Your task to perform on an android device: Is it going to rain tomorrow? Image 0: 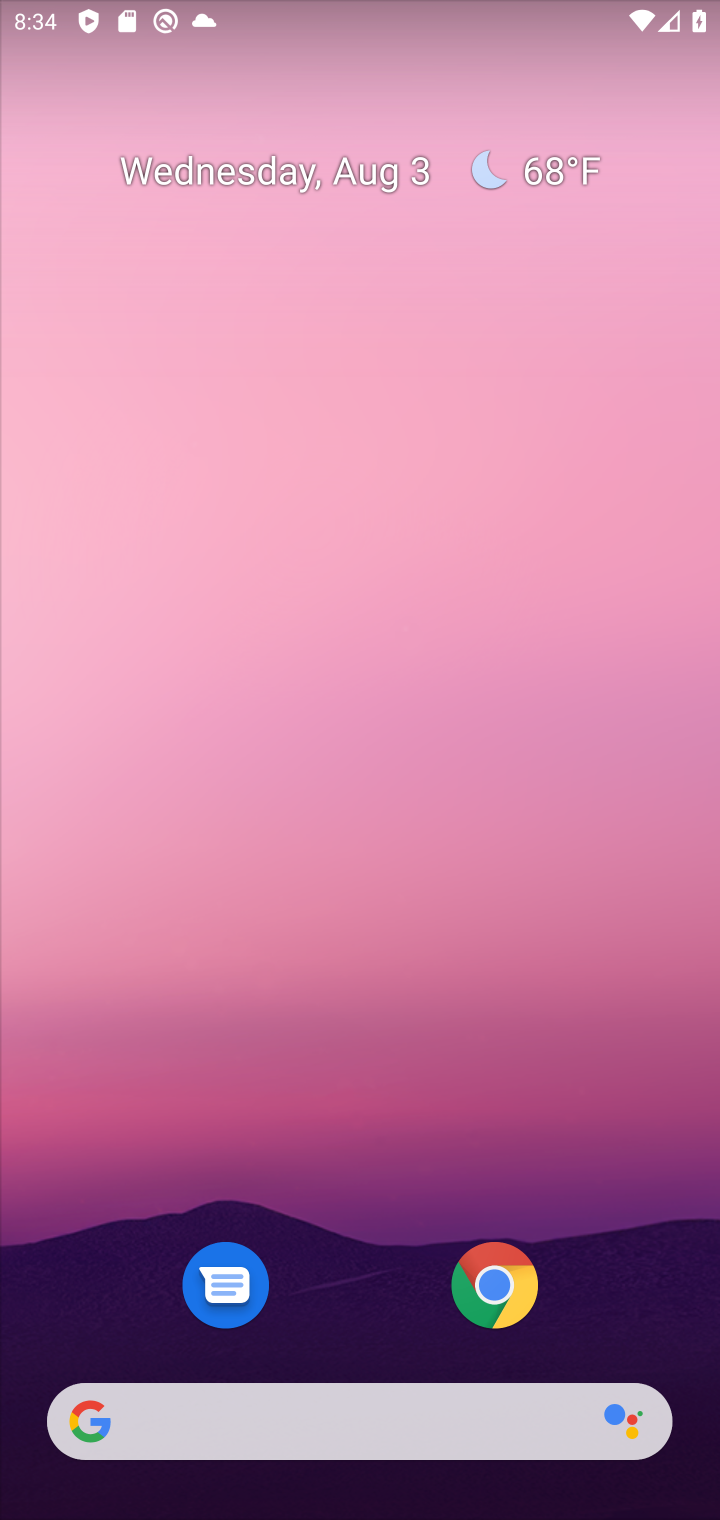
Step 0: drag from (625, 1272) to (532, 221)
Your task to perform on an android device: Is it going to rain tomorrow? Image 1: 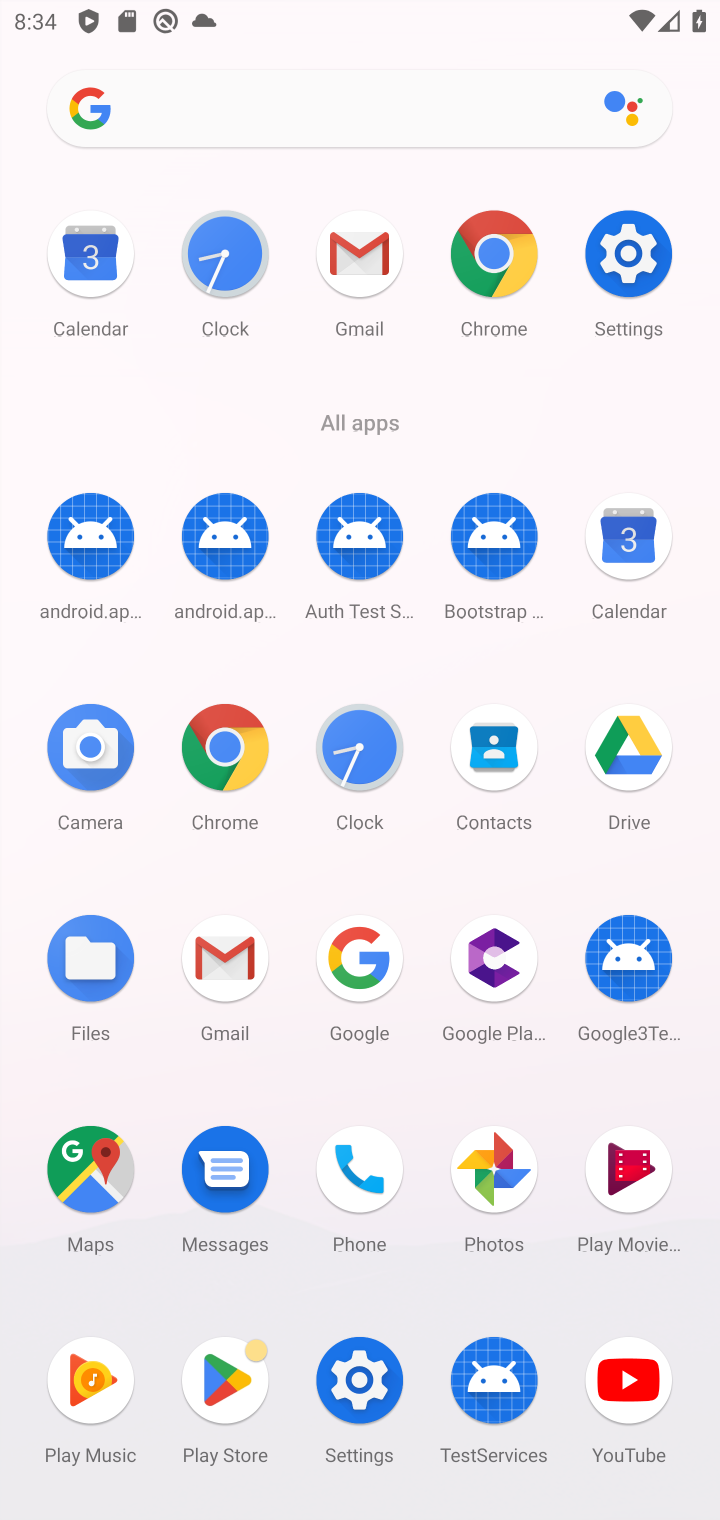
Step 1: click (354, 937)
Your task to perform on an android device: Is it going to rain tomorrow? Image 2: 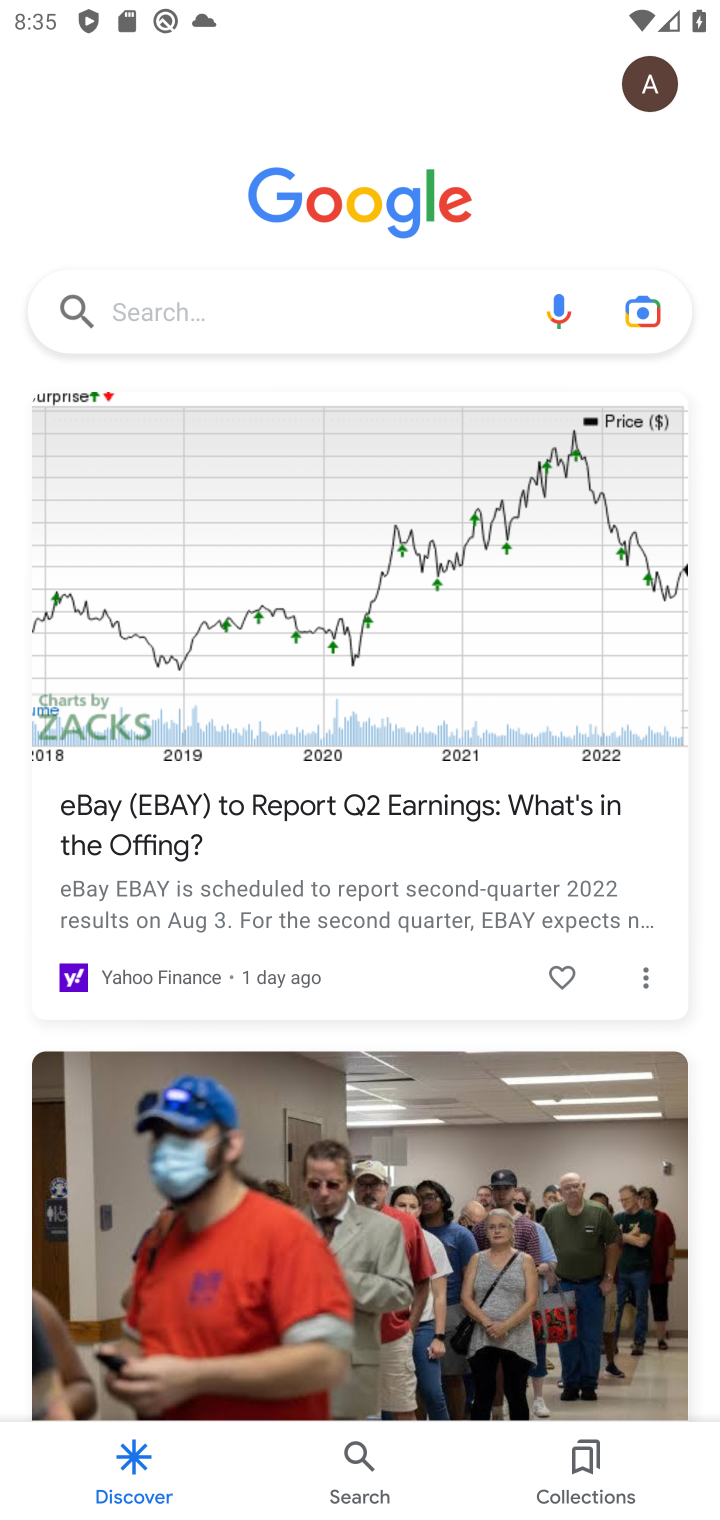
Step 2: click (336, 323)
Your task to perform on an android device: Is it going to rain tomorrow? Image 3: 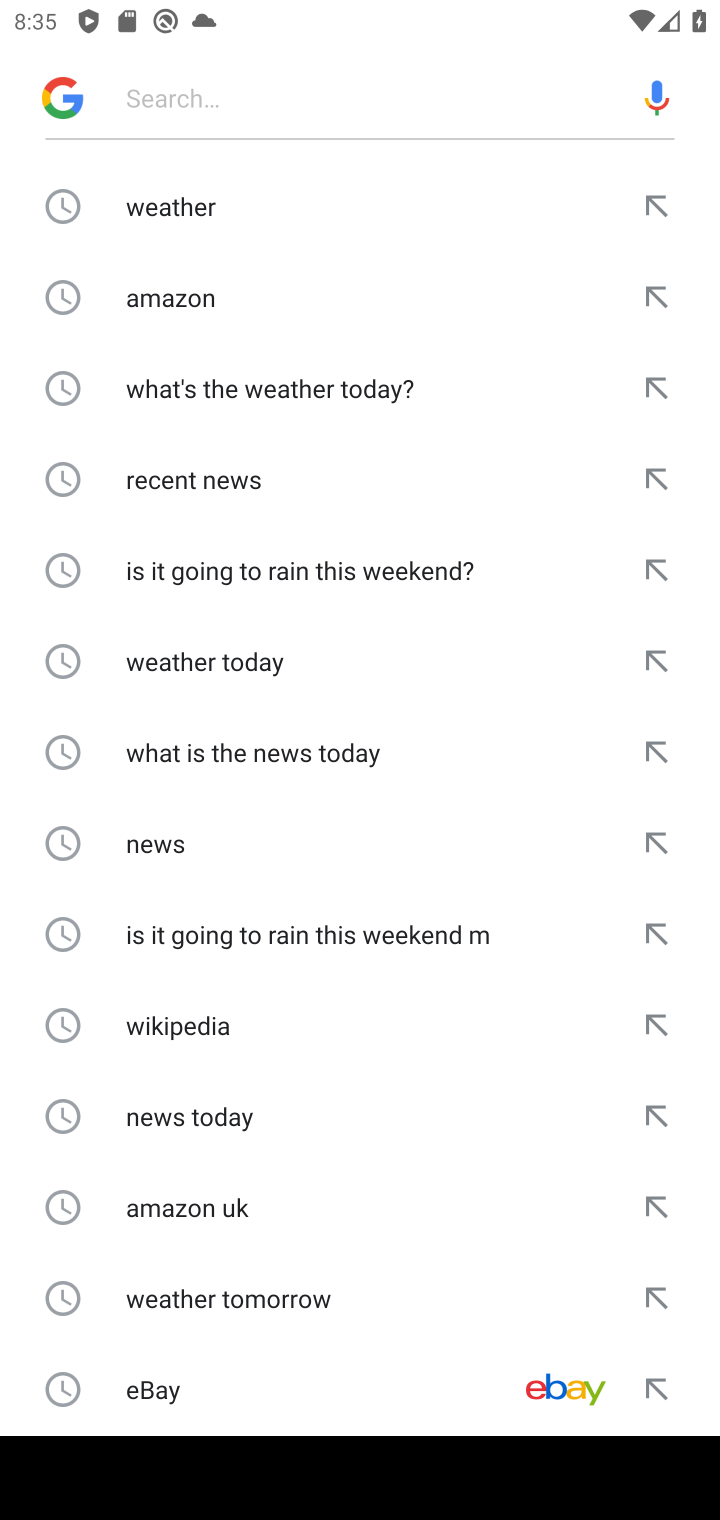
Step 3: click (240, 193)
Your task to perform on an android device: Is it going to rain tomorrow? Image 4: 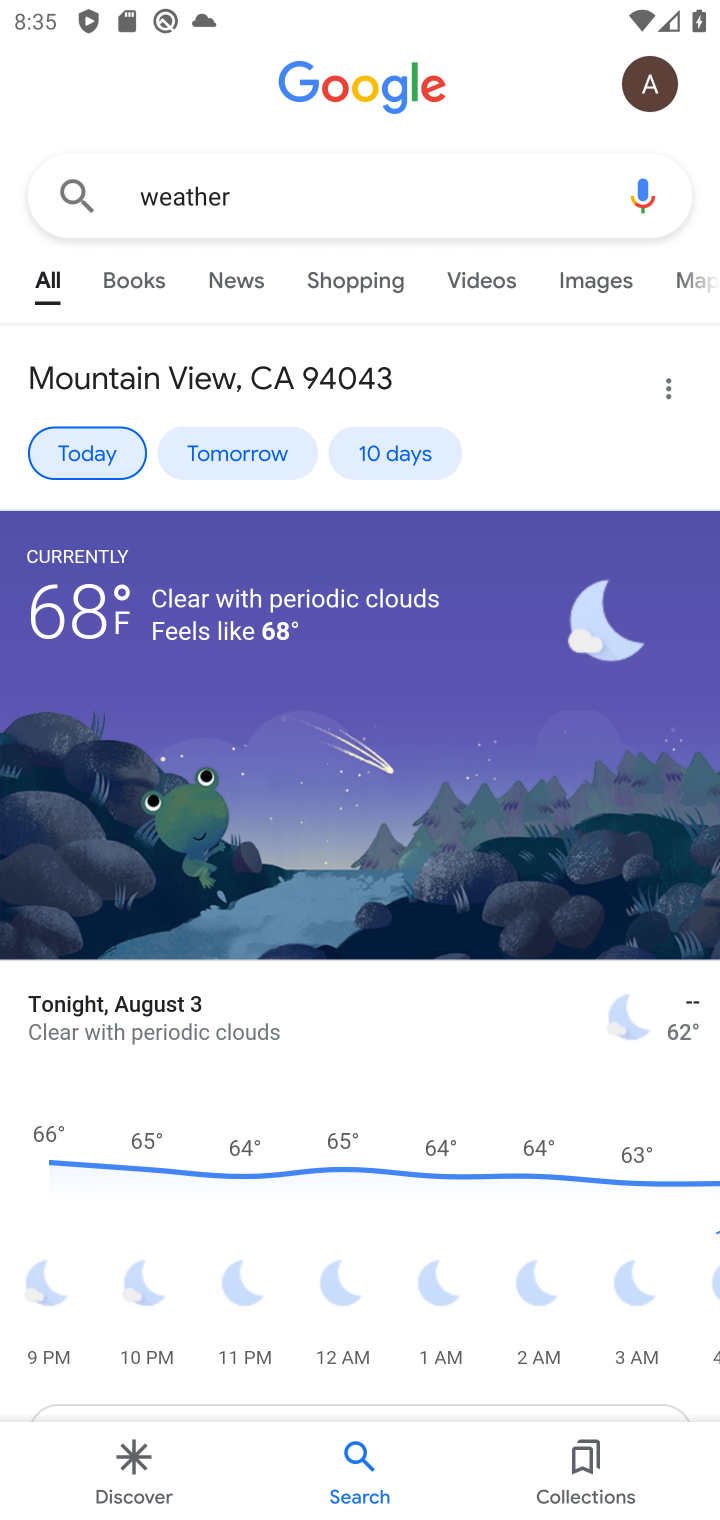
Step 4: click (217, 456)
Your task to perform on an android device: Is it going to rain tomorrow? Image 5: 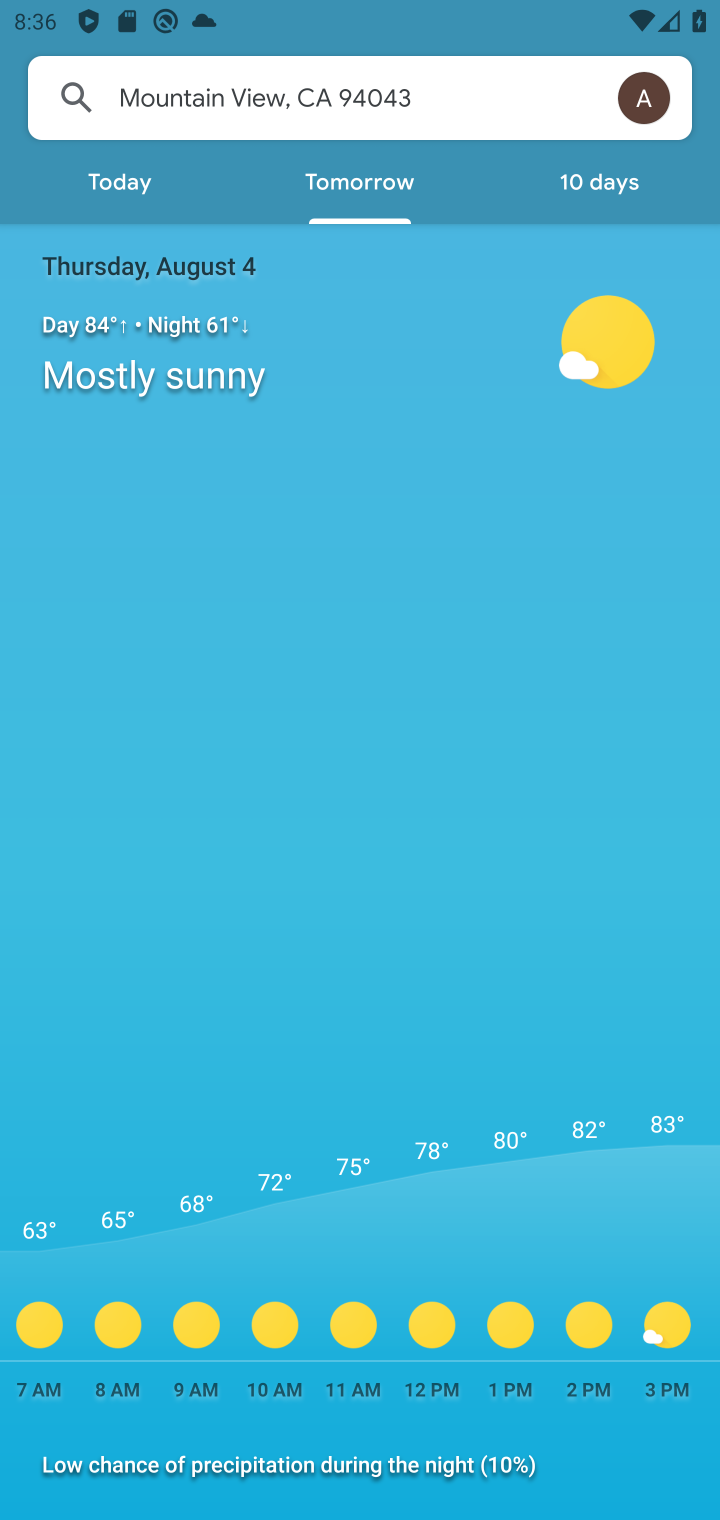
Step 5: task complete